Your task to perform on an android device: Open battery settings Image 0: 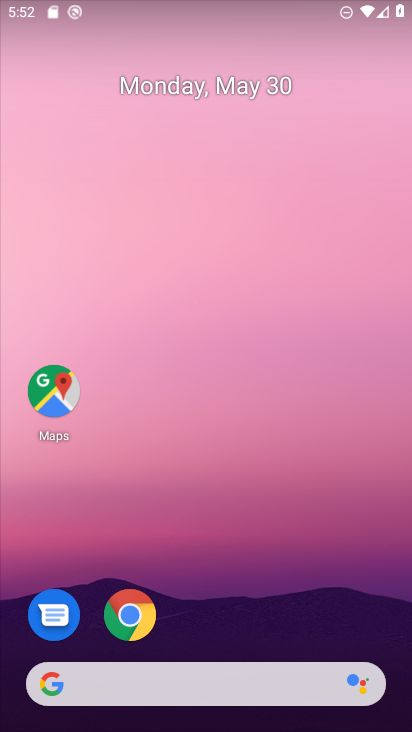
Step 0: drag from (228, 582) to (222, 144)
Your task to perform on an android device: Open battery settings Image 1: 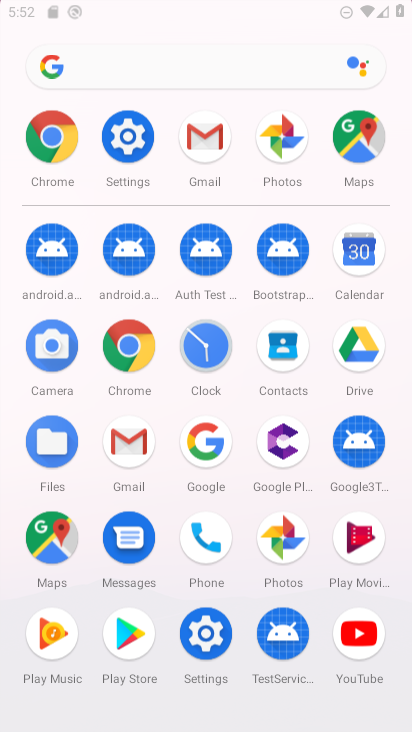
Step 1: drag from (286, 383) to (338, 674)
Your task to perform on an android device: Open battery settings Image 2: 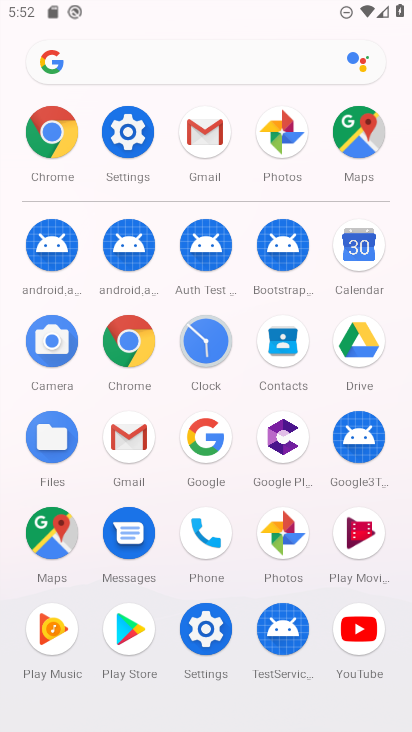
Step 2: click (123, 143)
Your task to perform on an android device: Open battery settings Image 3: 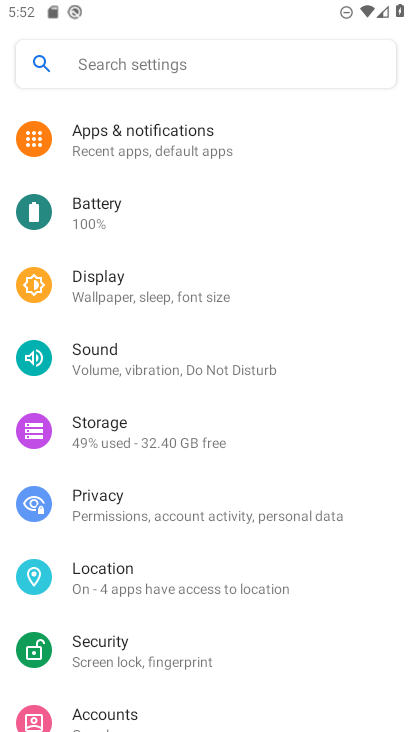
Step 3: click (89, 206)
Your task to perform on an android device: Open battery settings Image 4: 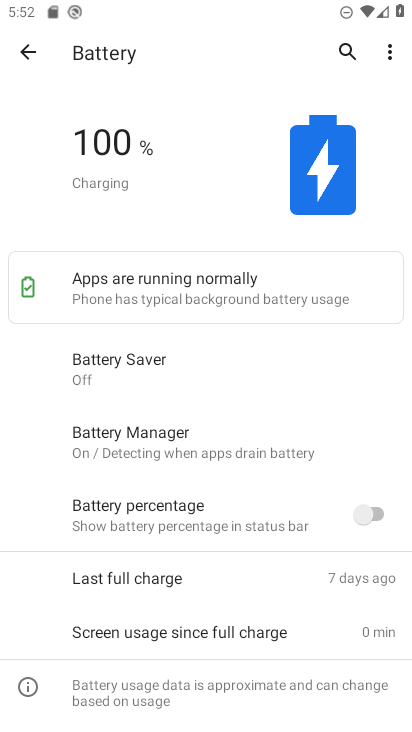
Step 4: task complete